Your task to perform on an android device: search for starred emails in the gmail app Image 0: 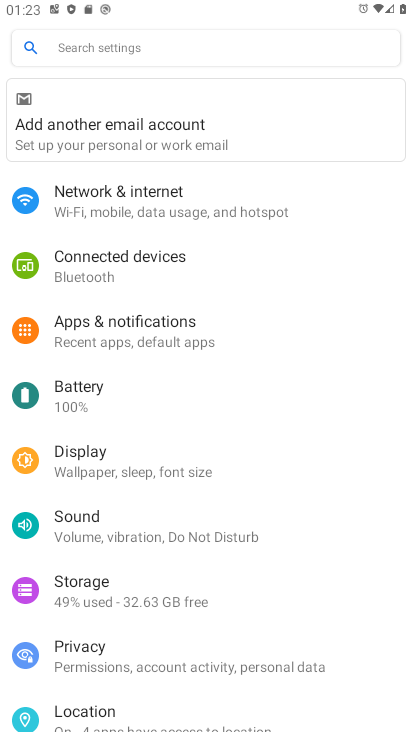
Step 0: press home button
Your task to perform on an android device: search for starred emails in the gmail app Image 1: 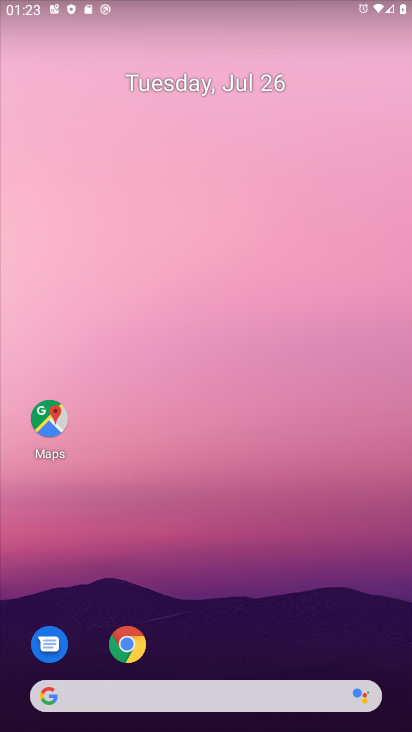
Step 1: drag from (208, 632) to (212, 262)
Your task to perform on an android device: search for starred emails in the gmail app Image 2: 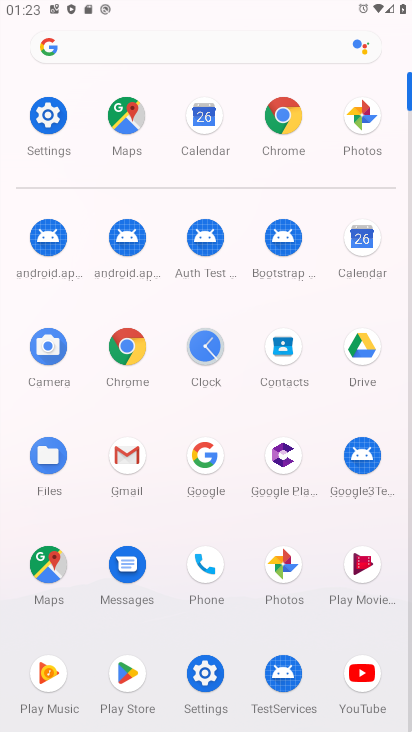
Step 2: click (117, 450)
Your task to perform on an android device: search for starred emails in the gmail app Image 3: 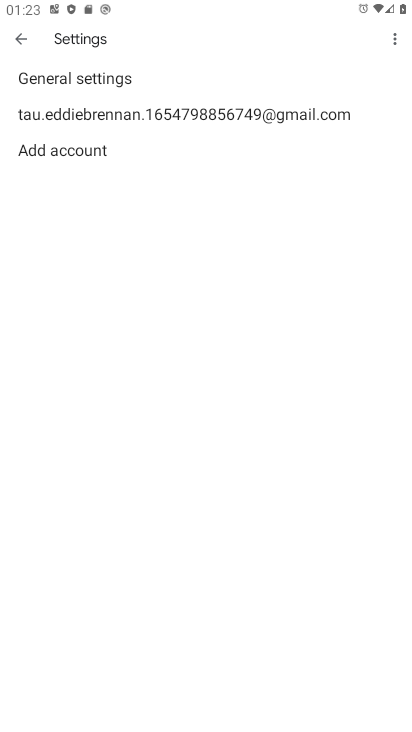
Step 3: click (24, 35)
Your task to perform on an android device: search for starred emails in the gmail app Image 4: 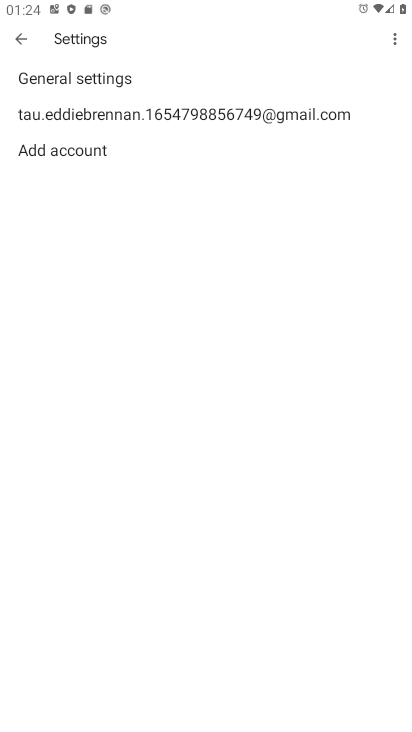
Step 4: click (13, 32)
Your task to perform on an android device: search for starred emails in the gmail app Image 5: 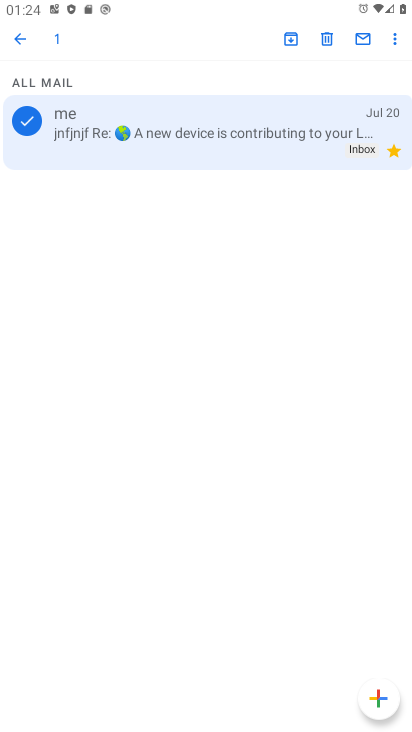
Step 5: click (28, 46)
Your task to perform on an android device: search for starred emails in the gmail app Image 6: 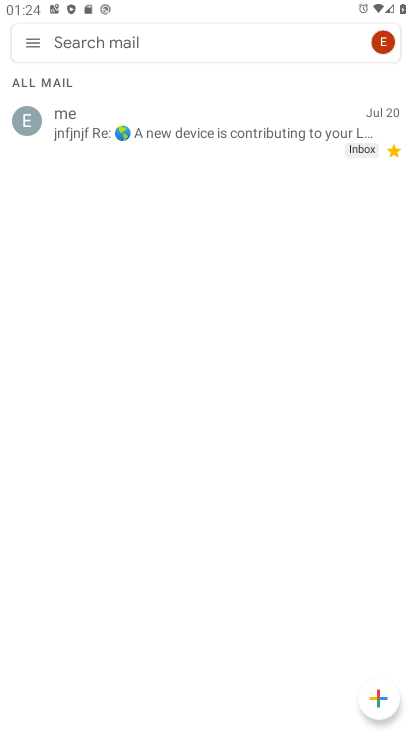
Step 6: click (28, 46)
Your task to perform on an android device: search for starred emails in the gmail app Image 7: 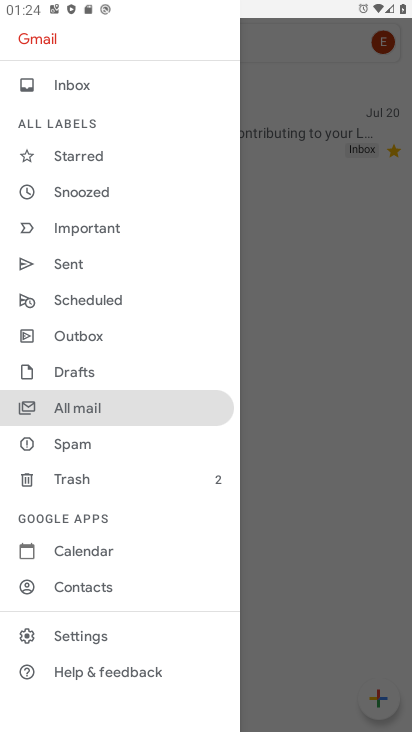
Step 7: click (96, 157)
Your task to perform on an android device: search for starred emails in the gmail app Image 8: 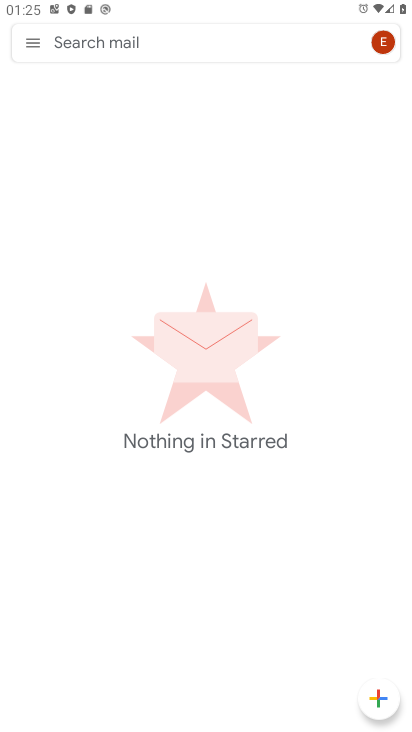
Step 8: task complete